Your task to perform on an android device: Go to notification settings Image 0: 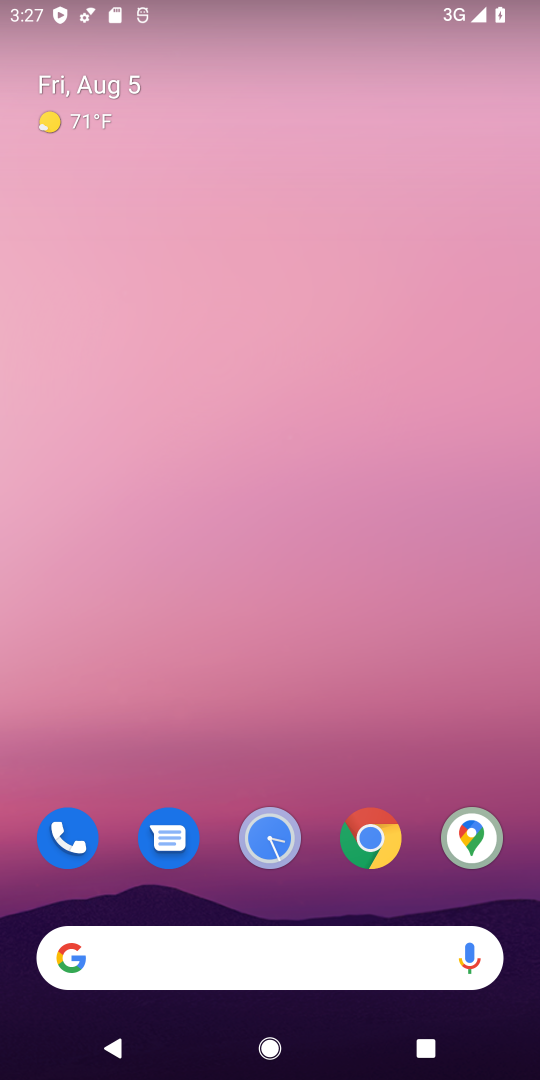
Step 0: drag from (222, 683) to (230, 406)
Your task to perform on an android device: Go to notification settings Image 1: 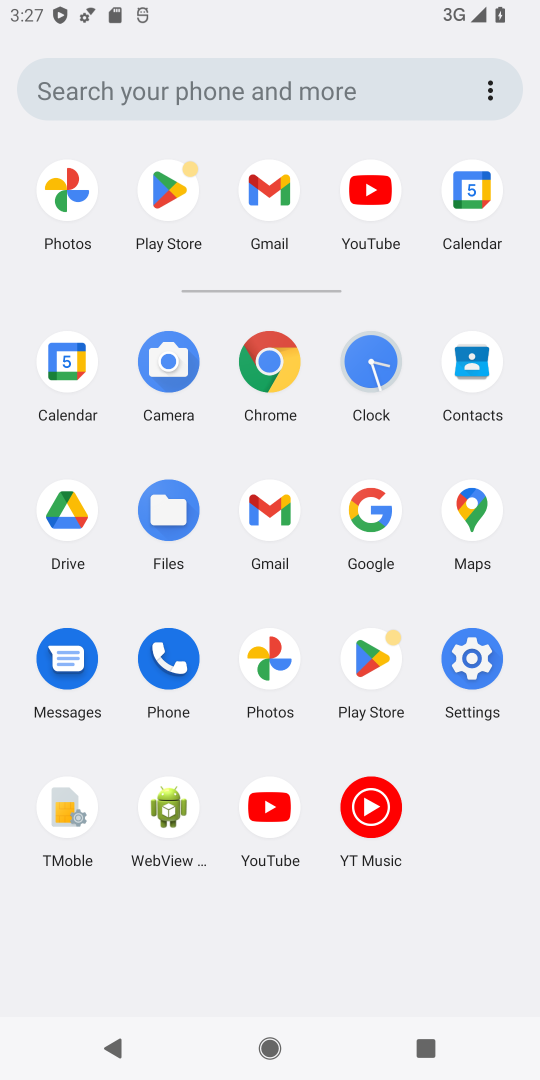
Step 1: click (460, 650)
Your task to perform on an android device: Go to notification settings Image 2: 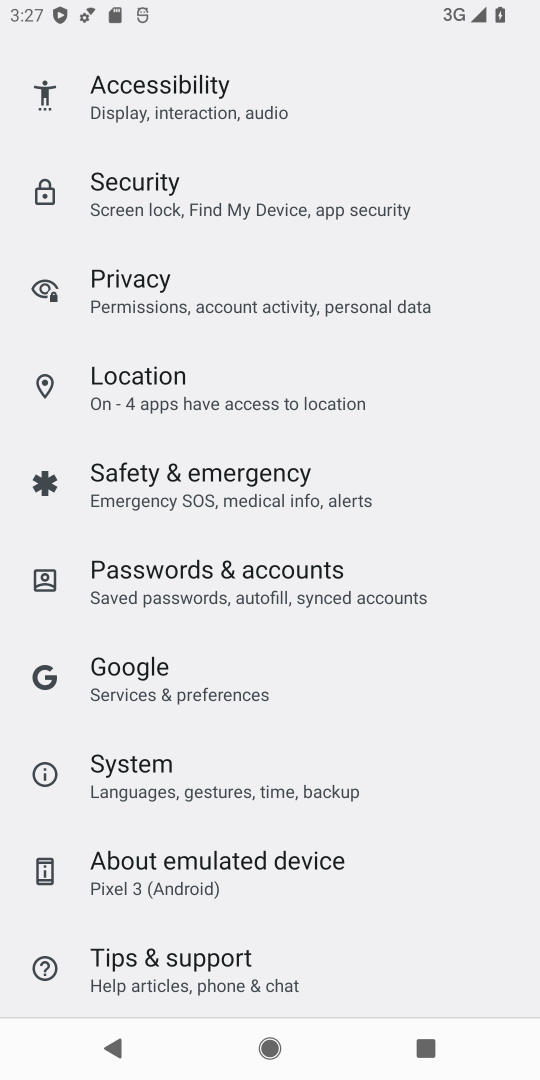
Step 2: drag from (187, 303) to (180, 958)
Your task to perform on an android device: Go to notification settings Image 3: 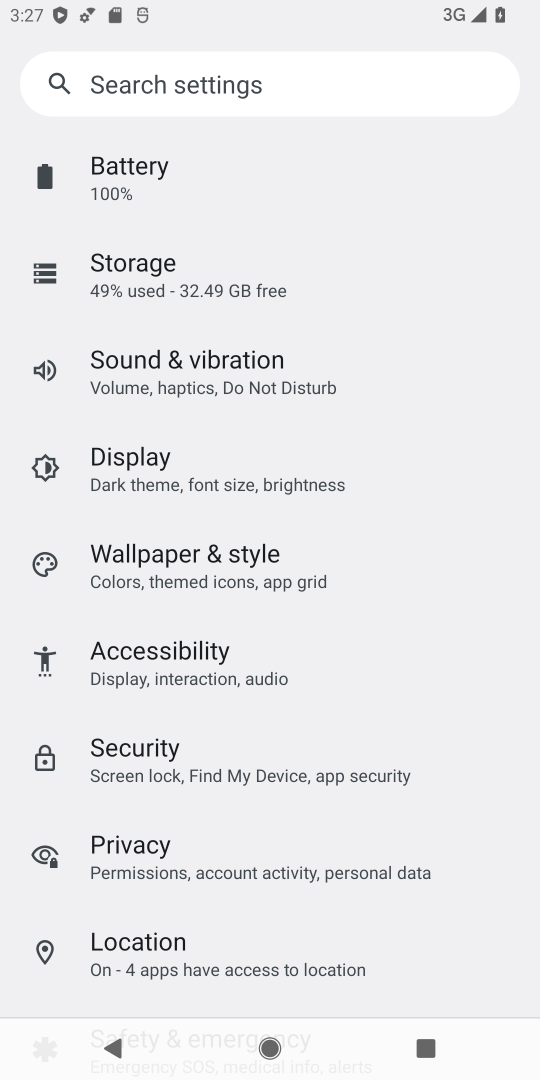
Step 3: drag from (247, 219) to (243, 900)
Your task to perform on an android device: Go to notification settings Image 4: 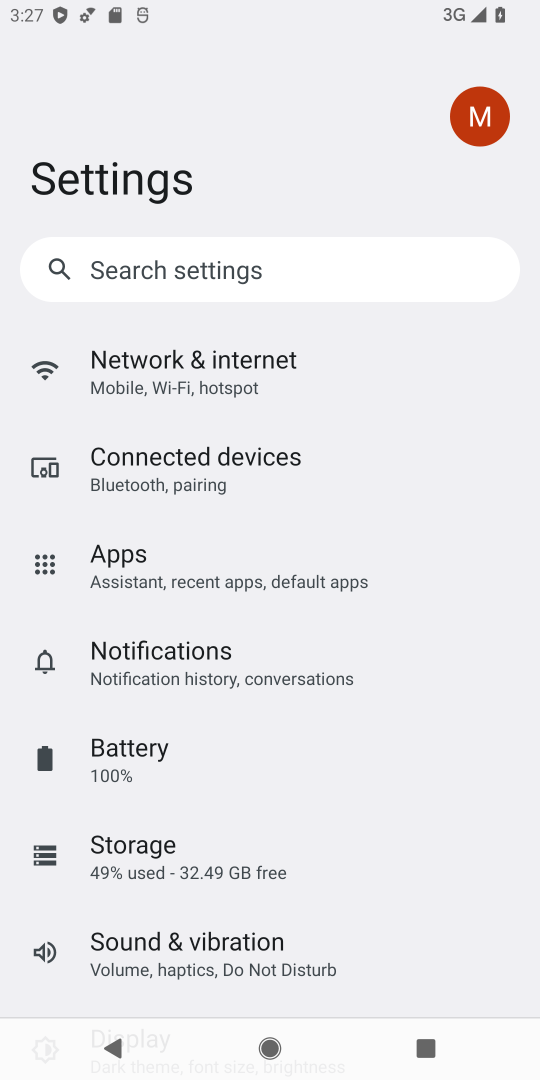
Step 4: click (209, 668)
Your task to perform on an android device: Go to notification settings Image 5: 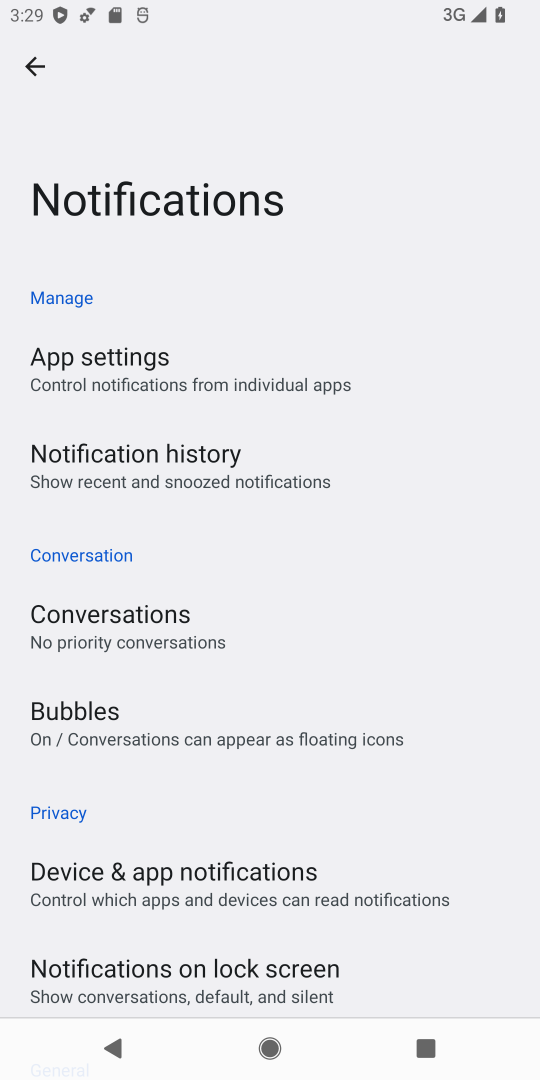
Step 5: task complete